Your task to perform on an android device: Add "logitech g pro" to the cart on bestbuy.com, then select checkout. Image 0: 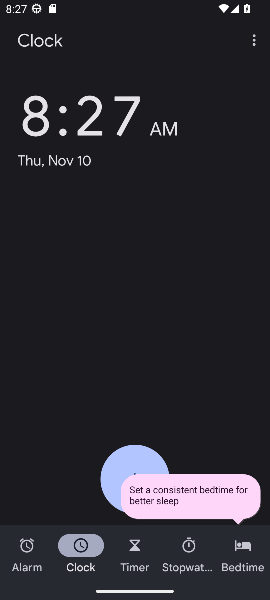
Step 0: press home button
Your task to perform on an android device: Add "logitech g pro" to the cart on bestbuy.com, then select checkout. Image 1: 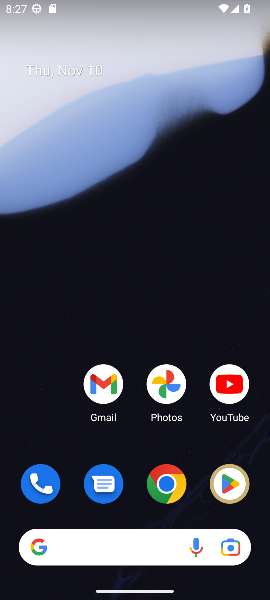
Step 1: click (165, 489)
Your task to perform on an android device: Add "logitech g pro" to the cart on bestbuy.com, then select checkout. Image 2: 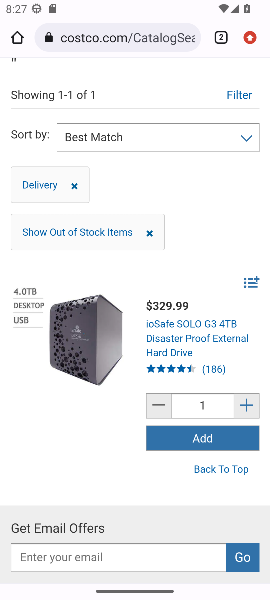
Step 2: click (150, 41)
Your task to perform on an android device: Add "logitech g pro" to the cart on bestbuy.com, then select checkout. Image 3: 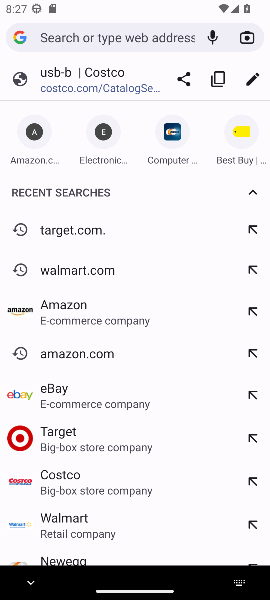
Step 3: click (232, 135)
Your task to perform on an android device: Add "logitech g pro" to the cart on bestbuy.com, then select checkout. Image 4: 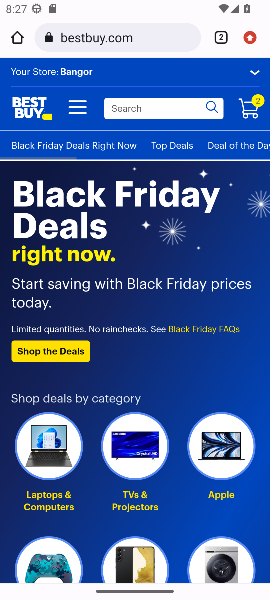
Step 4: click (145, 106)
Your task to perform on an android device: Add "logitech g pro" to the cart on bestbuy.com, then select checkout. Image 5: 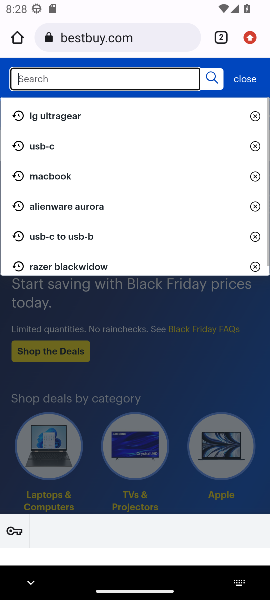
Step 5: type "logitech g pro"
Your task to perform on an android device: Add "logitech g pro" to the cart on bestbuy.com, then select checkout. Image 6: 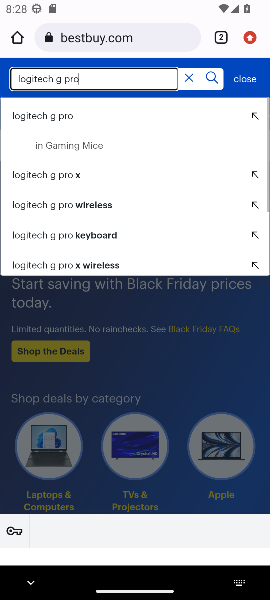
Step 6: click (53, 118)
Your task to perform on an android device: Add "logitech g pro" to the cart on bestbuy.com, then select checkout. Image 7: 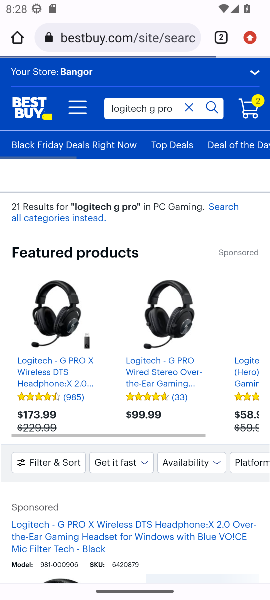
Step 7: drag from (111, 378) to (83, 151)
Your task to perform on an android device: Add "logitech g pro" to the cart on bestbuy.com, then select checkout. Image 8: 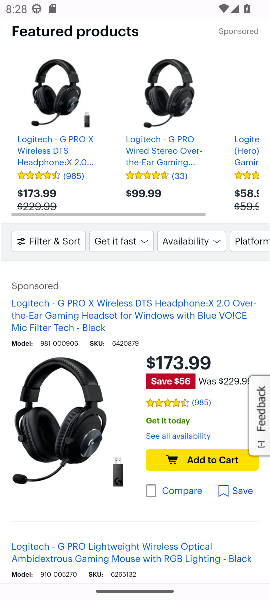
Step 8: click (199, 457)
Your task to perform on an android device: Add "logitech g pro" to the cart on bestbuy.com, then select checkout. Image 9: 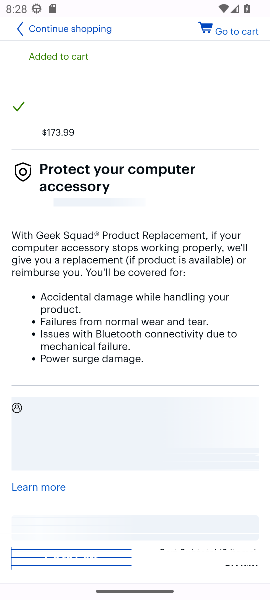
Step 9: click (239, 34)
Your task to perform on an android device: Add "logitech g pro" to the cart on bestbuy.com, then select checkout. Image 10: 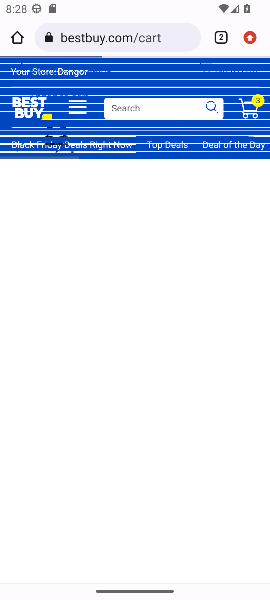
Step 10: click (241, 70)
Your task to perform on an android device: Add "logitech g pro" to the cart on bestbuy.com, then select checkout. Image 11: 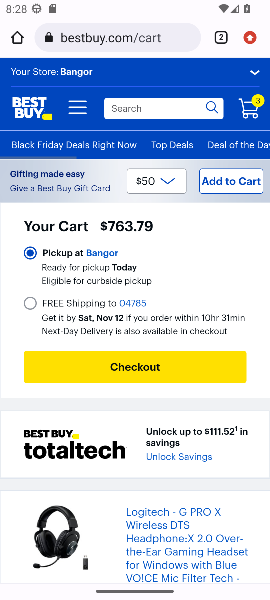
Step 11: click (130, 367)
Your task to perform on an android device: Add "logitech g pro" to the cart on bestbuy.com, then select checkout. Image 12: 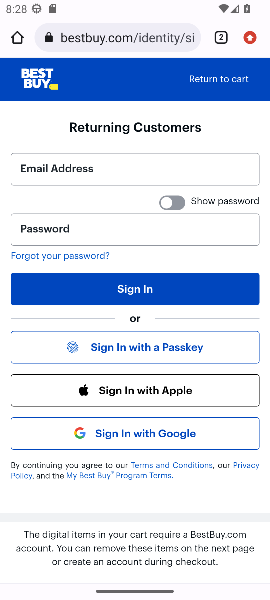
Step 12: task complete